Your task to perform on an android device: turn off translation in the chrome app Image 0: 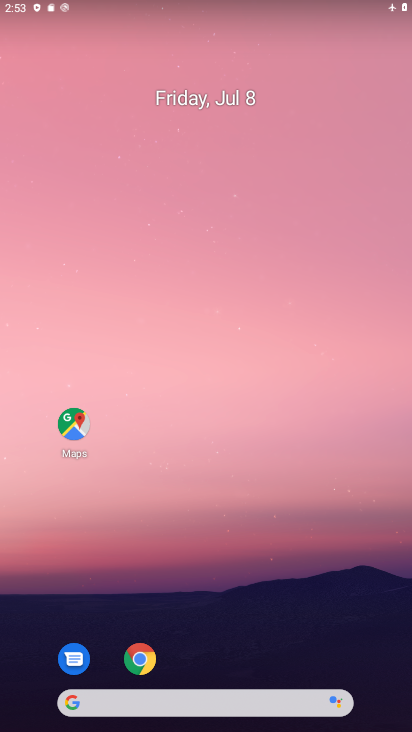
Step 0: click (357, 548)
Your task to perform on an android device: turn off translation in the chrome app Image 1: 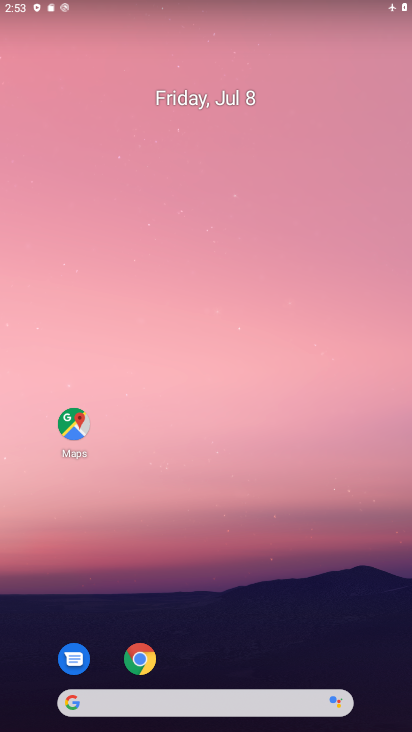
Step 1: drag from (282, 605) to (312, 207)
Your task to perform on an android device: turn off translation in the chrome app Image 2: 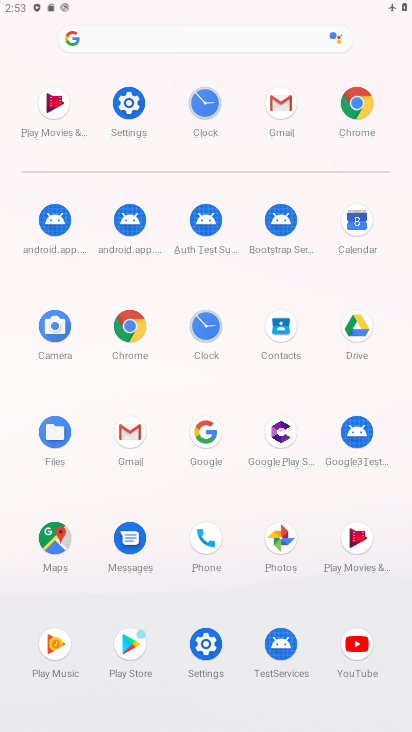
Step 2: click (140, 338)
Your task to perform on an android device: turn off translation in the chrome app Image 3: 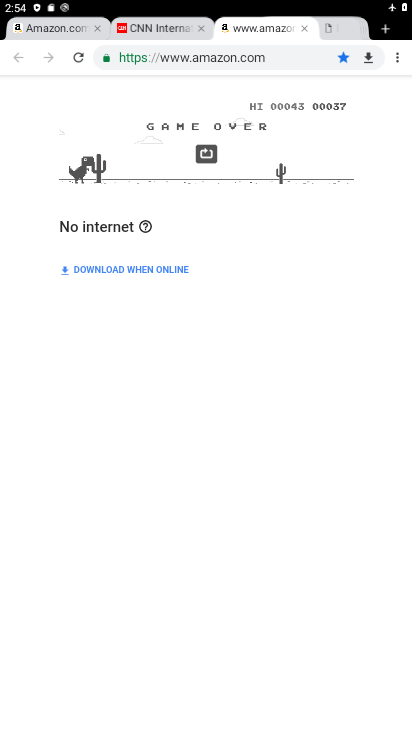
Step 3: click (393, 55)
Your task to perform on an android device: turn off translation in the chrome app Image 4: 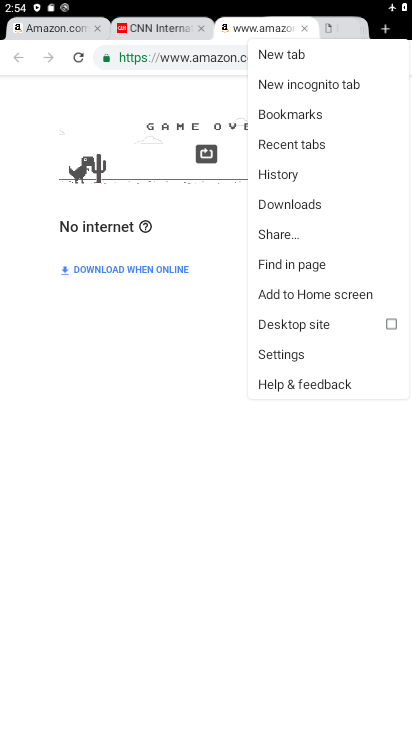
Step 4: click (302, 354)
Your task to perform on an android device: turn off translation in the chrome app Image 5: 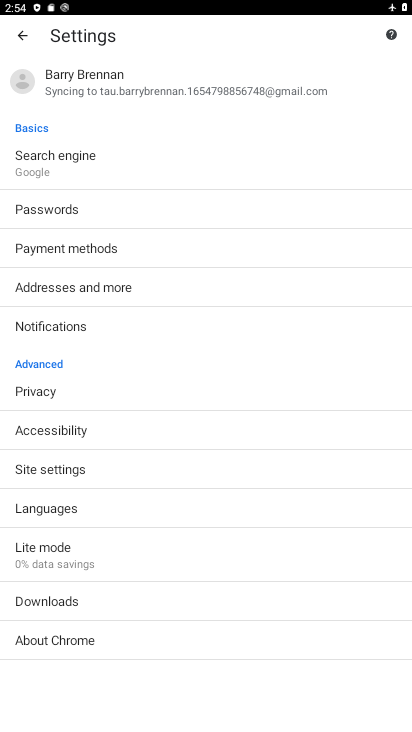
Step 5: click (104, 512)
Your task to perform on an android device: turn off translation in the chrome app Image 6: 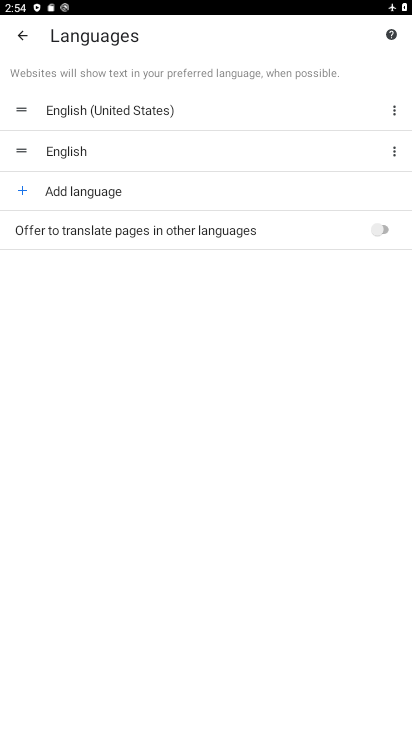
Step 6: click (320, 245)
Your task to perform on an android device: turn off translation in the chrome app Image 7: 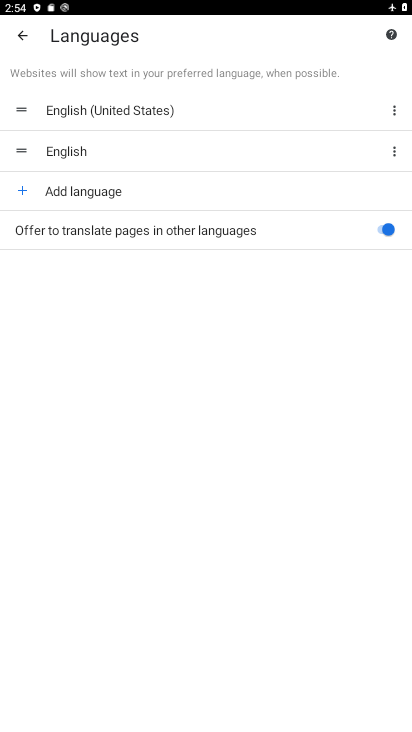
Step 7: click (372, 225)
Your task to perform on an android device: turn off translation in the chrome app Image 8: 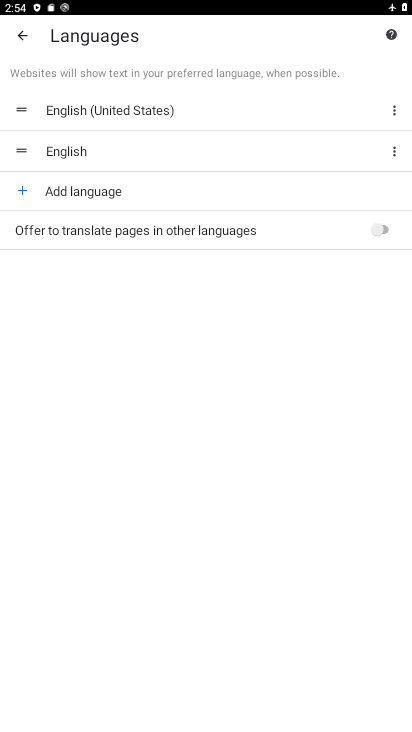
Step 8: task complete